Your task to perform on an android device: find which apps use the phone's location Image 0: 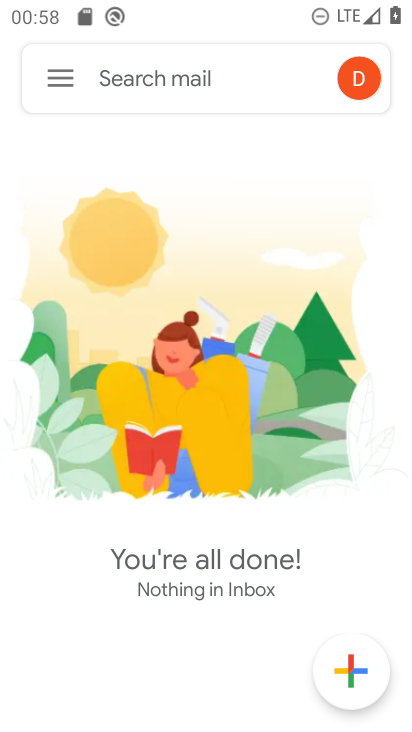
Step 0: press home button
Your task to perform on an android device: find which apps use the phone's location Image 1: 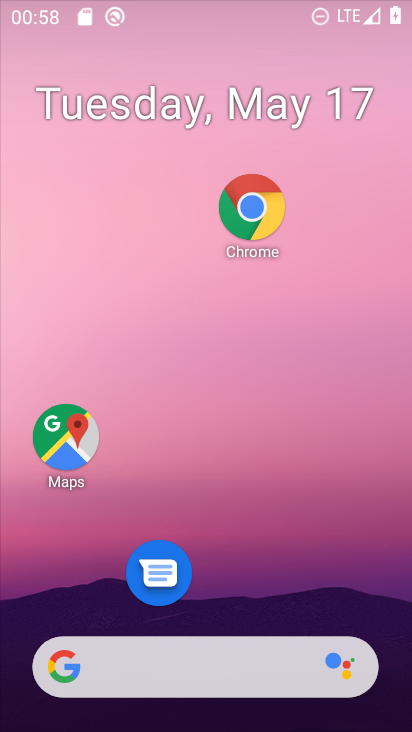
Step 1: drag from (258, 697) to (273, 41)
Your task to perform on an android device: find which apps use the phone's location Image 2: 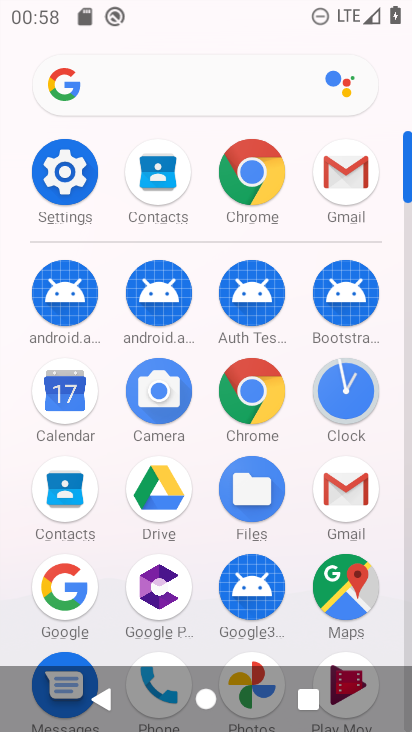
Step 2: click (48, 181)
Your task to perform on an android device: find which apps use the phone's location Image 3: 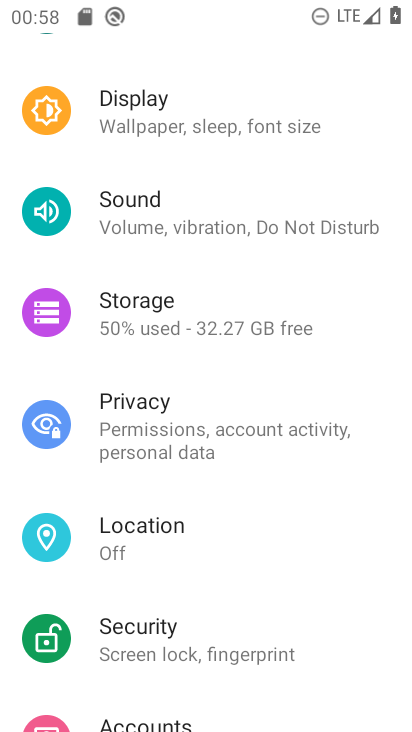
Step 3: drag from (193, 649) to (201, 109)
Your task to perform on an android device: find which apps use the phone's location Image 4: 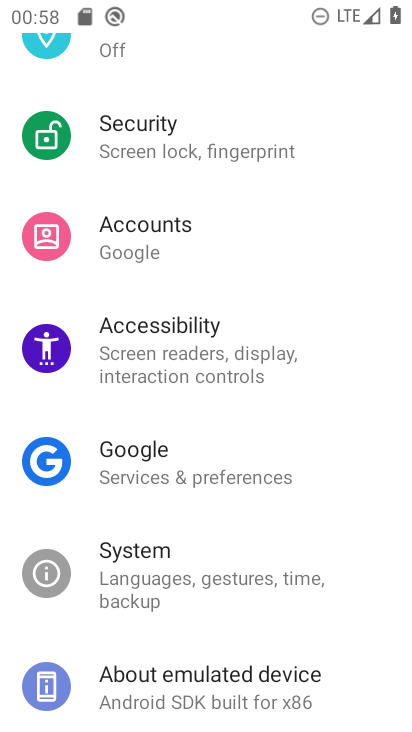
Step 4: drag from (195, 138) to (206, 526)
Your task to perform on an android device: find which apps use the phone's location Image 5: 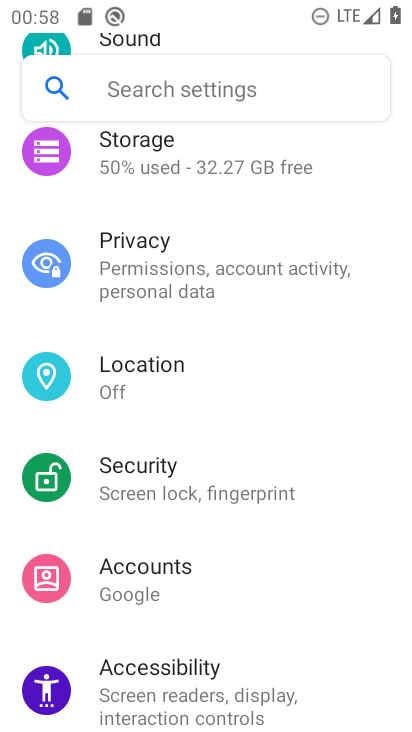
Step 5: click (168, 390)
Your task to perform on an android device: find which apps use the phone's location Image 6: 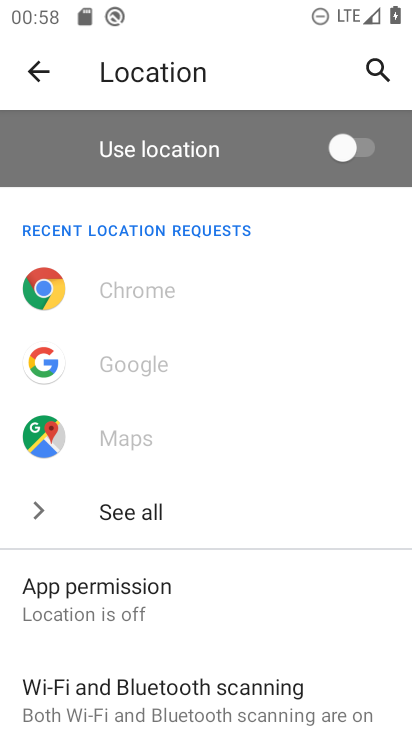
Step 6: drag from (235, 691) to (231, 352)
Your task to perform on an android device: find which apps use the phone's location Image 7: 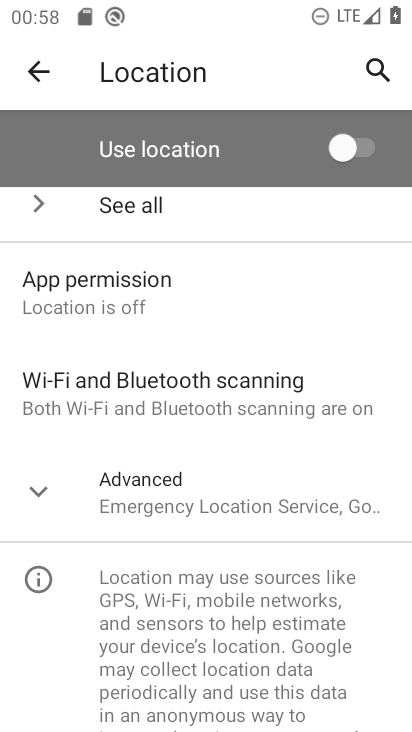
Step 7: click (222, 502)
Your task to perform on an android device: find which apps use the phone's location Image 8: 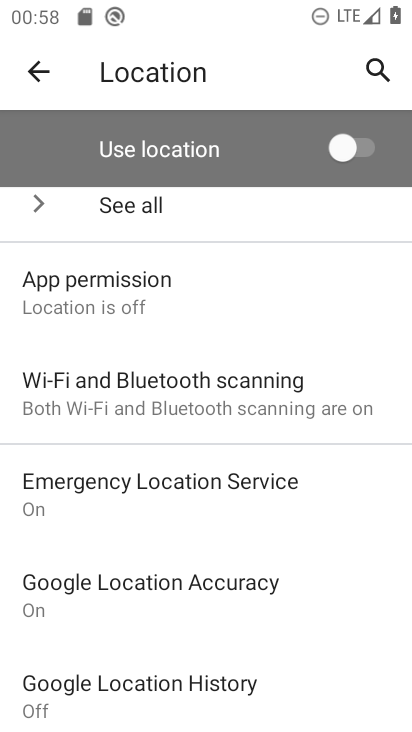
Step 8: click (146, 302)
Your task to perform on an android device: find which apps use the phone's location Image 9: 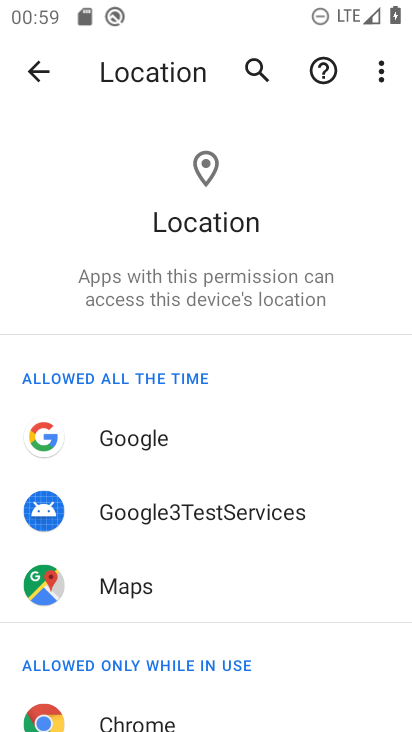
Step 9: task complete